Your task to perform on an android device: set the stopwatch Image 0: 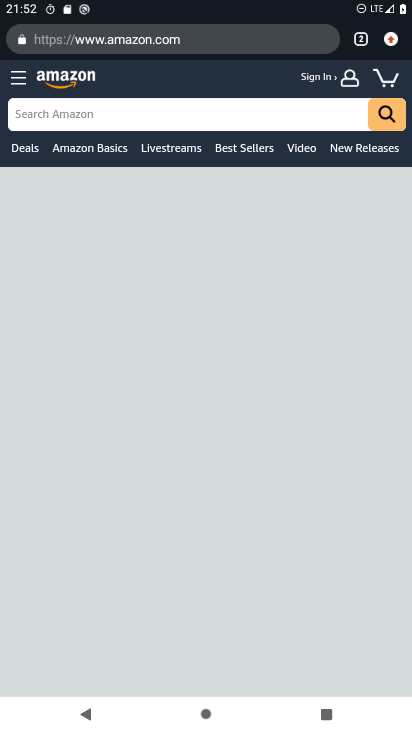
Step 0: press home button
Your task to perform on an android device: set the stopwatch Image 1: 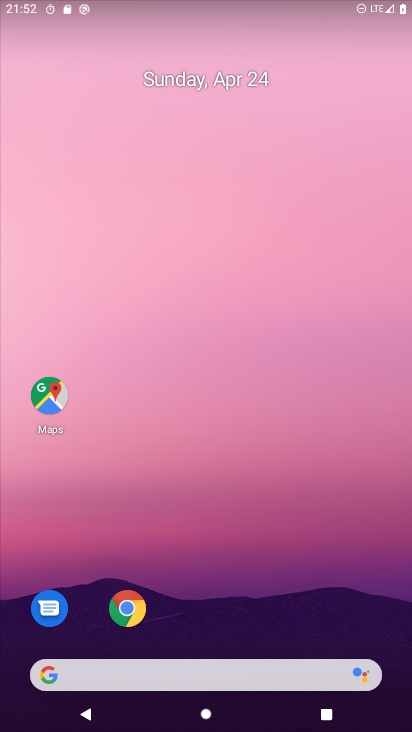
Step 1: drag from (262, 599) to (294, 132)
Your task to perform on an android device: set the stopwatch Image 2: 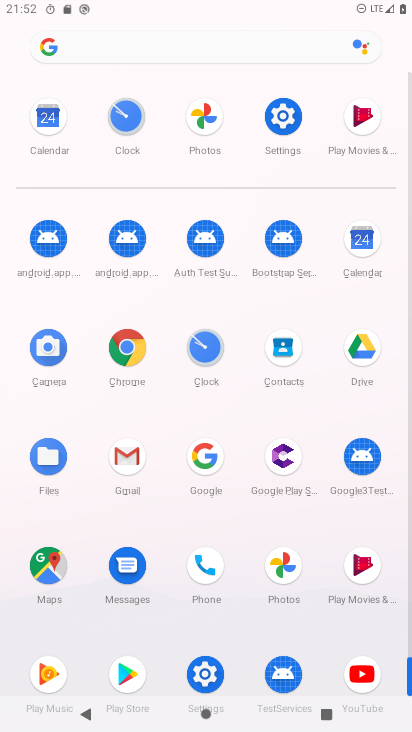
Step 2: click (132, 118)
Your task to perform on an android device: set the stopwatch Image 3: 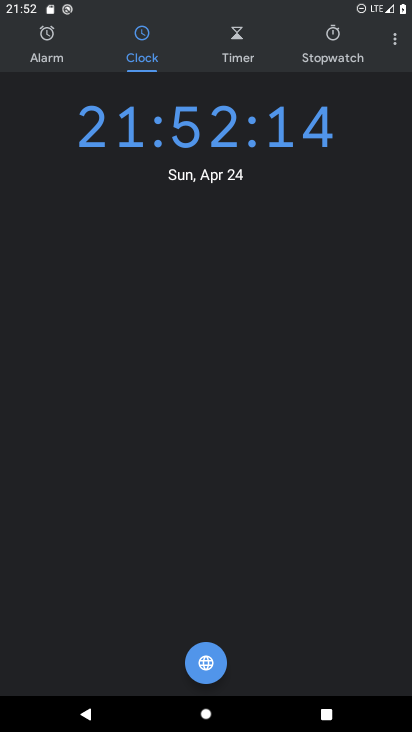
Step 3: click (319, 50)
Your task to perform on an android device: set the stopwatch Image 4: 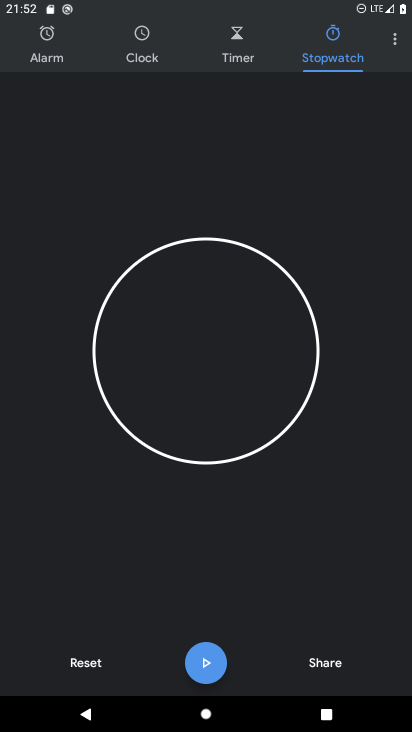
Step 4: click (215, 356)
Your task to perform on an android device: set the stopwatch Image 5: 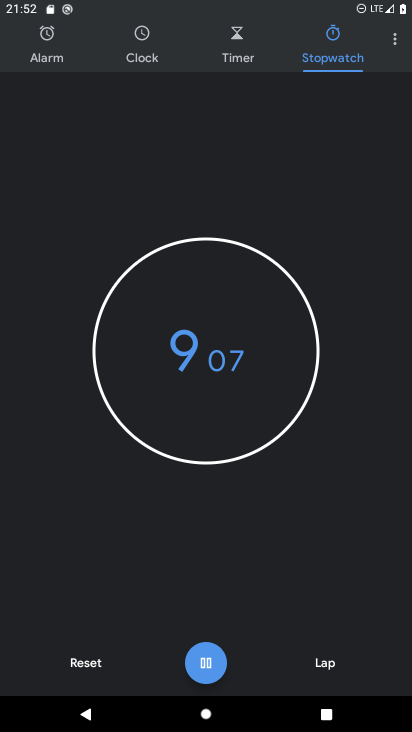
Step 5: click (213, 654)
Your task to perform on an android device: set the stopwatch Image 6: 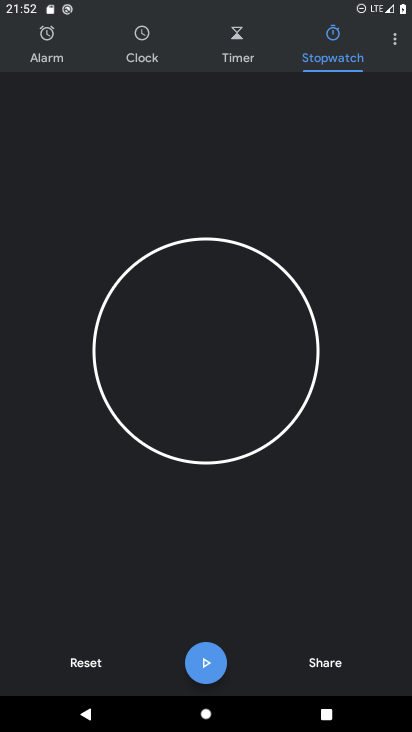
Step 6: task complete